Your task to perform on an android device: turn off data saver in the chrome app Image 0: 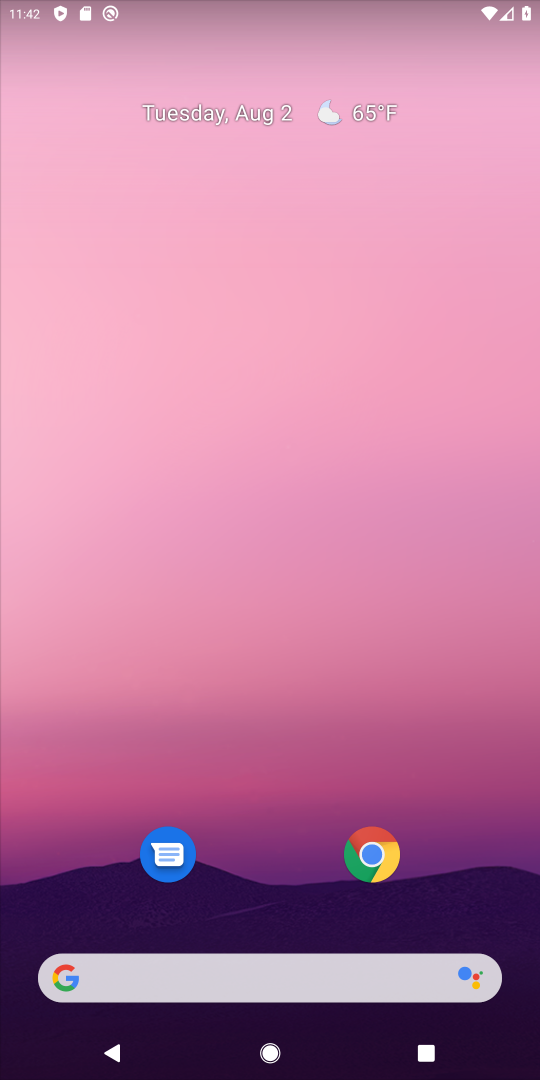
Step 0: click (376, 848)
Your task to perform on an android device: turn off data saver in the chrome app Image 1: 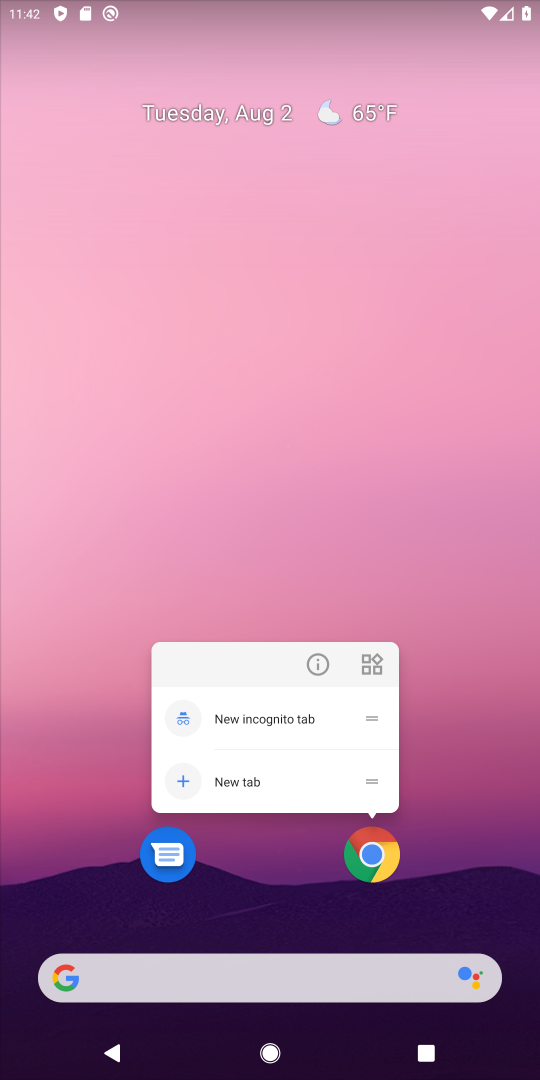
Step 1: click (365, 857)
Your task to perform on an android device: turn off data saver in the chrome app Image 2: 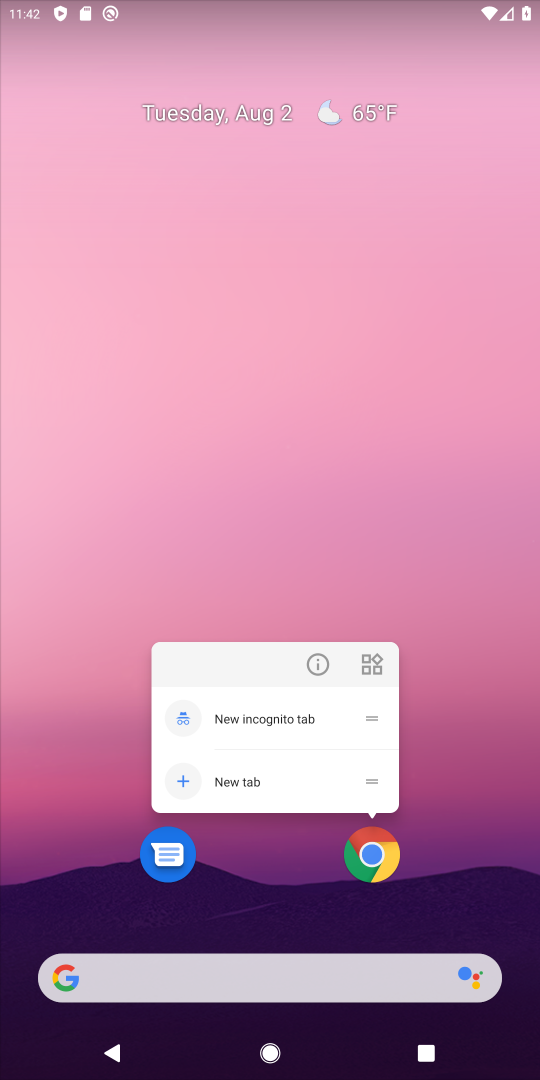
Step 2: click (391, 856)
Your task to perform on an android device: turn off data saver in the chrome app Image 3: 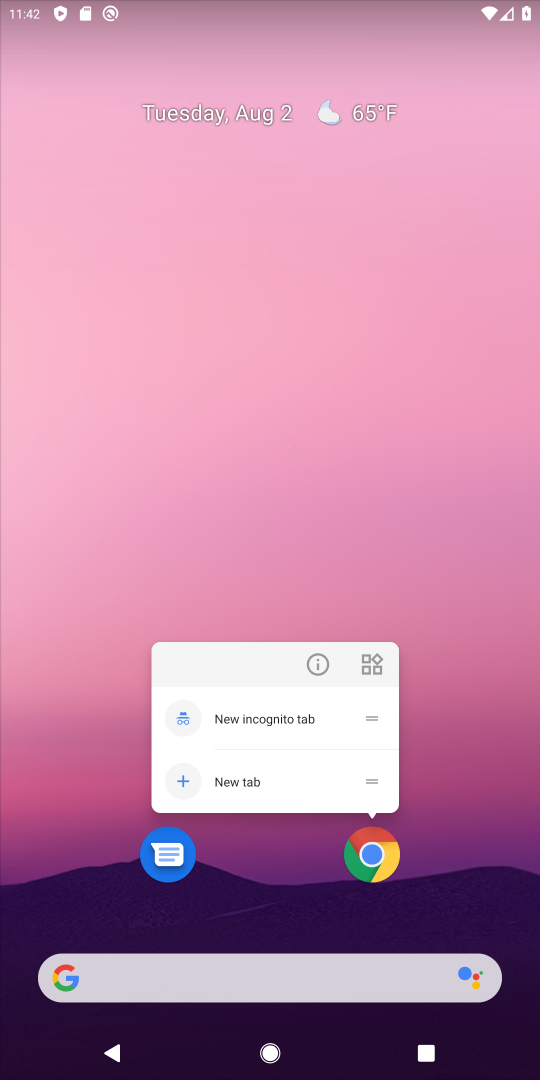
Step 3: click (382, 869)
Your task to perform on an android device: turn off data saver in the chrome app Image 4: 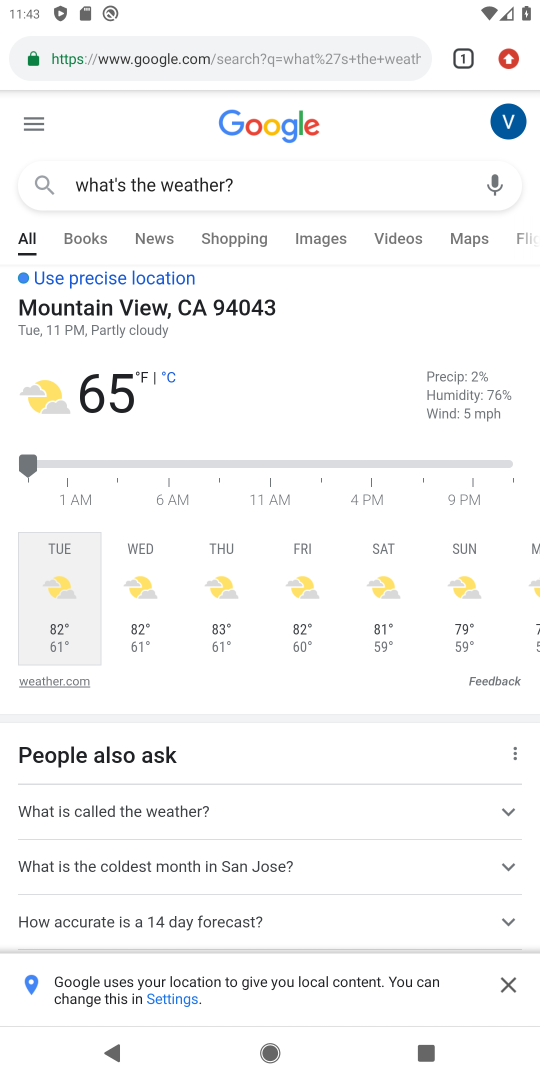
Step 4: drag from (503, 61) to (386, 709)
Your task to perform on an android device: turn off data saver in the chrome app Image 5: 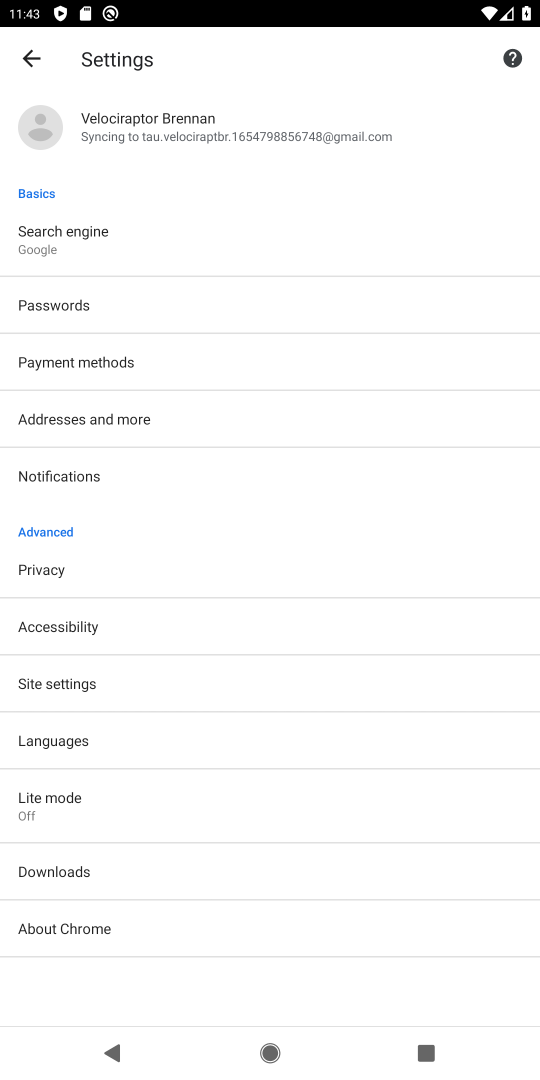
Step 5: click (64, 807)
Your task to perform on an android device: turn off data saver in the chrome app Image 6: 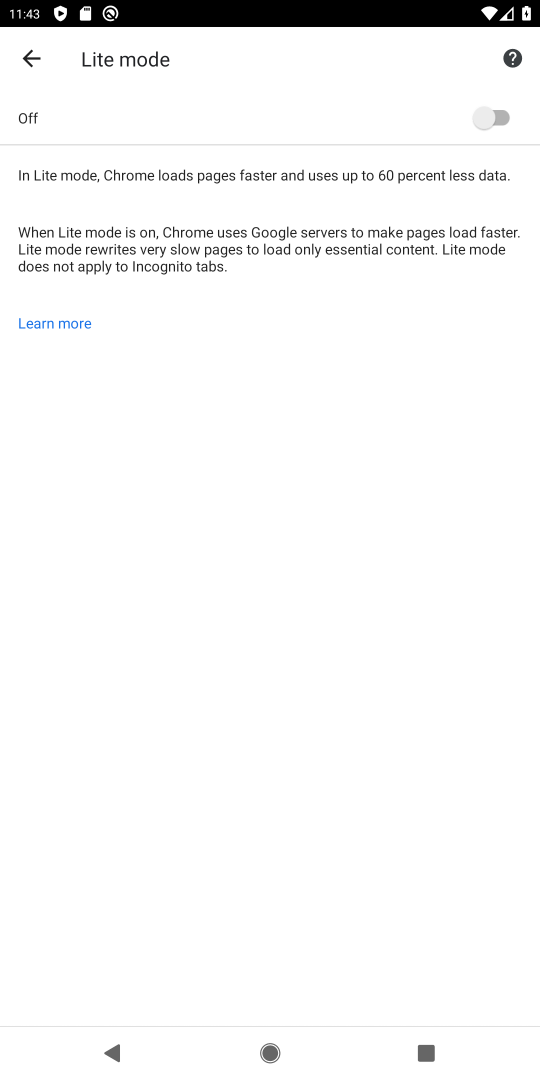
Step 6: task complete